Your task to perform on an android device: Open Chrome and go to settings Image 0: 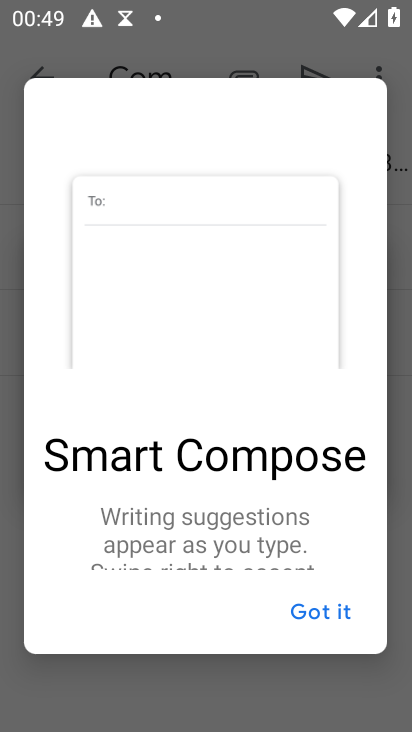
Step 0: press home button
Your task to perform on an android device: Open Chrome and go to settings Image 1: 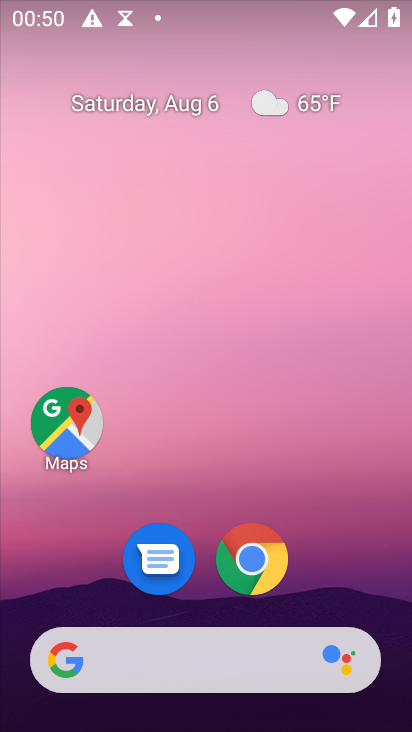
Step 1: click (236, 578)
Your task to perform on an android device: Open Chrome and go to settings Image 2: 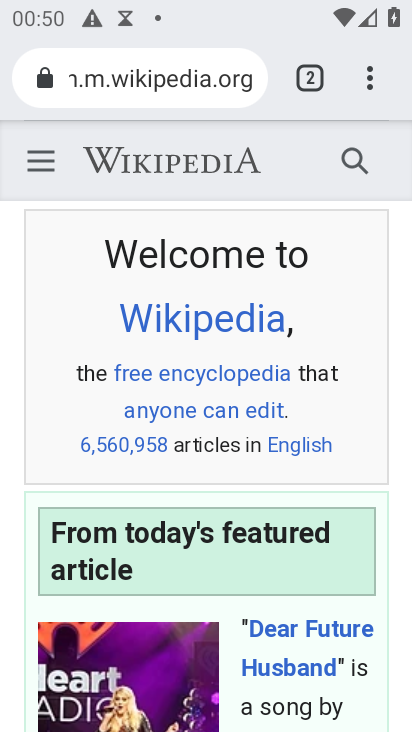
Step 2: click (383, 95)
Your task to perform on an android device: Open Chrome and go to settings Image 3: 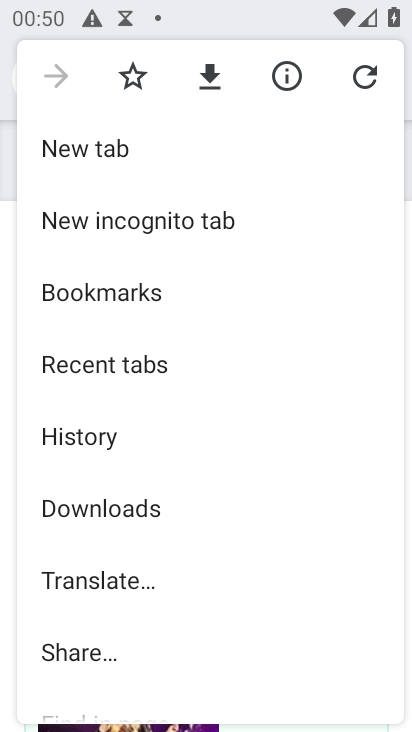
Step 3: drag from (252, 687) to (195, 278)
Your task to perform on an android device: Open Chrome and go to settings Image 4: 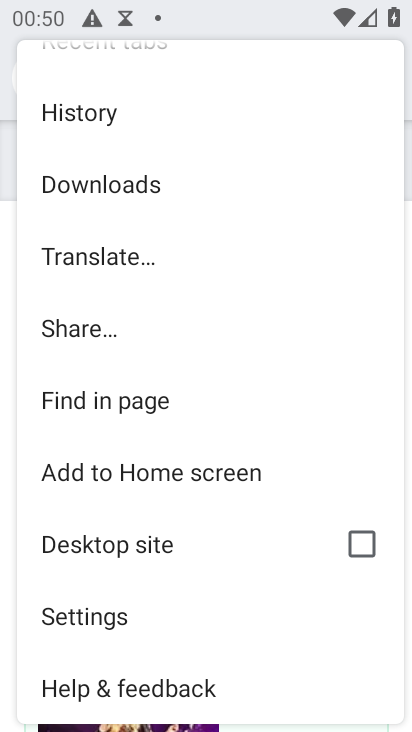
Step 4: click (234, 621)
Your task to perform on an android device: Open Chrome and go to settings Image 5: 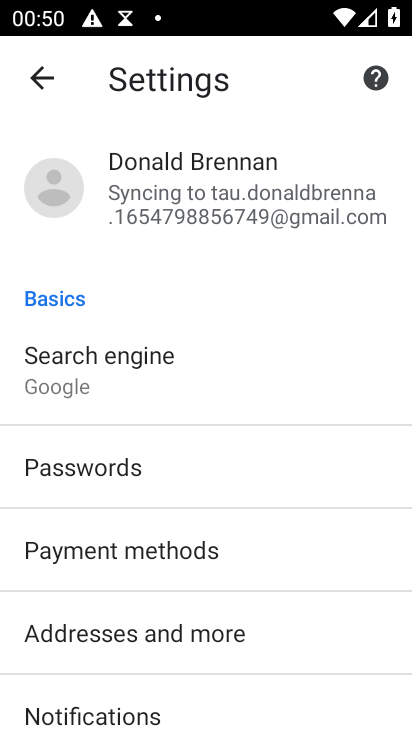
Step 5: task complete